Your task to perform on an android device: set the timer Image 0: 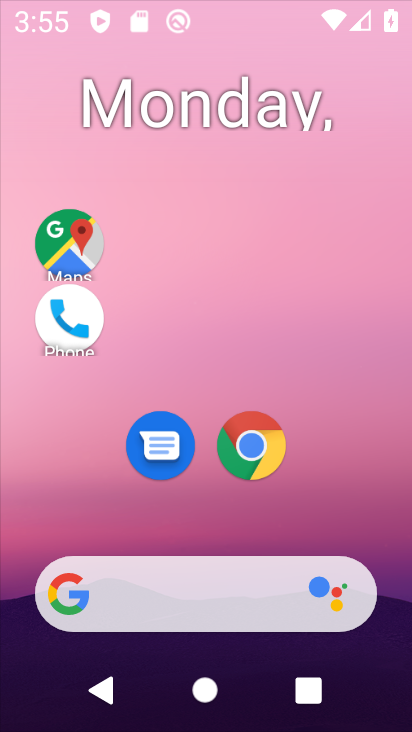
Step 0: click (261, 443)
Your task to perform on an android device: set the timer Image 1: 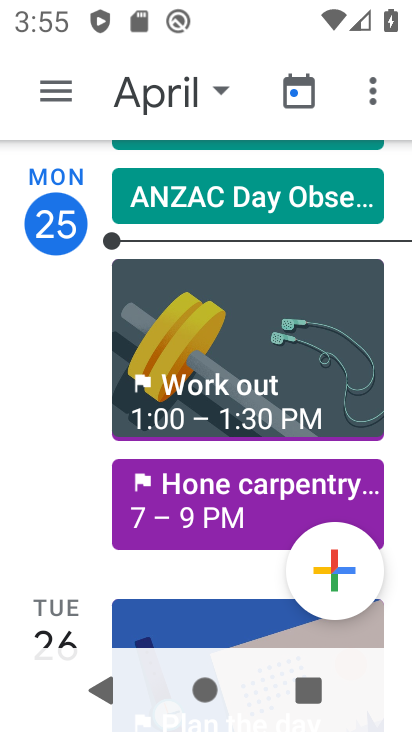
Step 1: press home button
Your task to perform on an android device: set the timer Image 2: 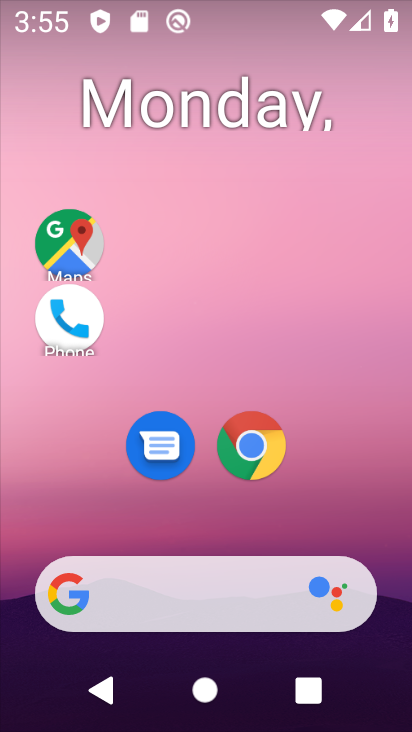
Step 2: drag from (278, 525) to (237, 42)
Your task to perform on an android device: set the timer Image 3: 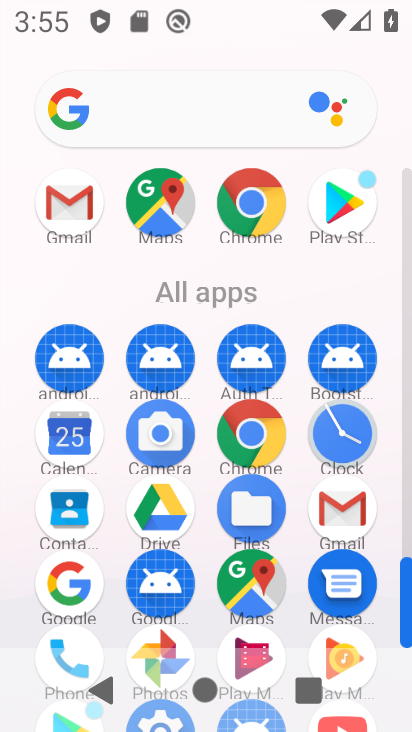
Step 3: click (341, 424)
Your task to perform on an android device: set the timer Image 4: 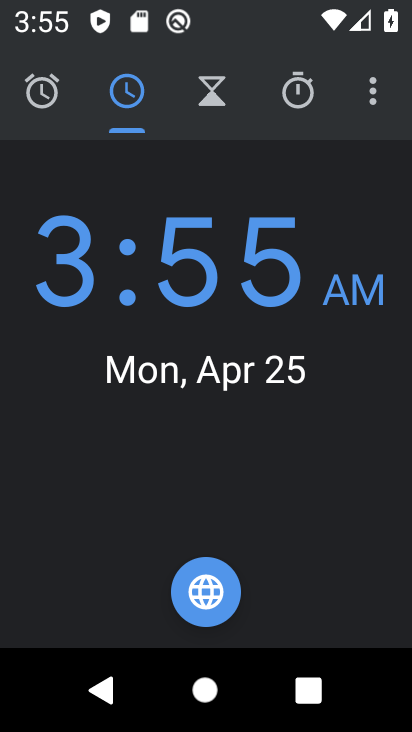
Step 4: click (220, 94)
Your task to perform on an android device: set the timer Image 5: 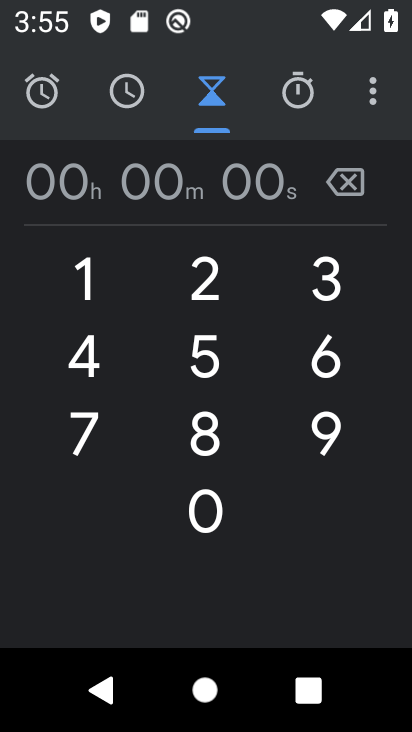
Step 5: click (112, 278)
Your task to perform on an android device: set the timer Image 6: 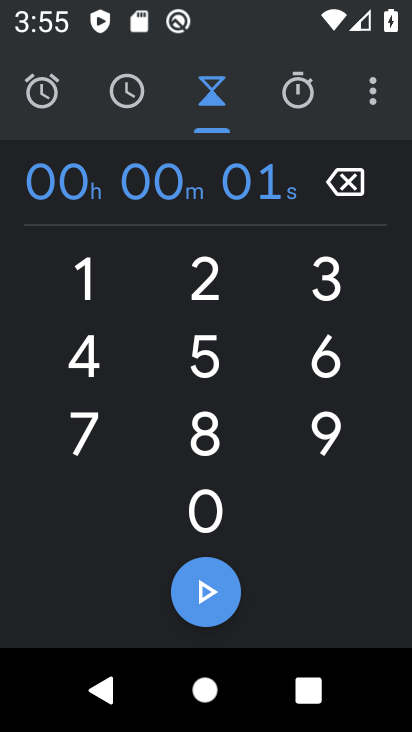
Step 6: click (98, 273)
Your task to perform on an android device: set the timer Image 7: 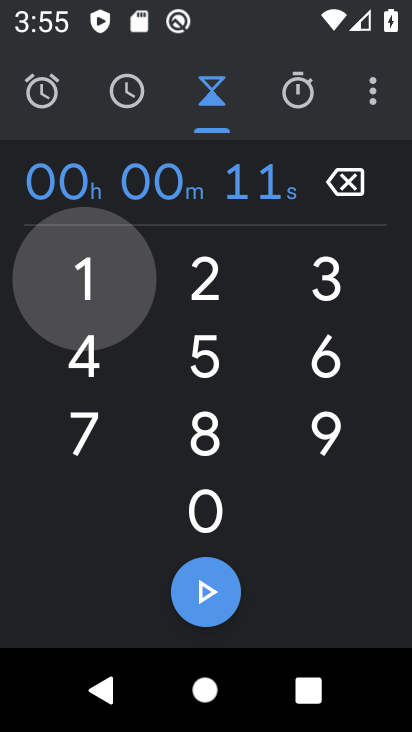
Step 7: click (98, 273)
Your task to perform on an android device: set the timer Image 8: 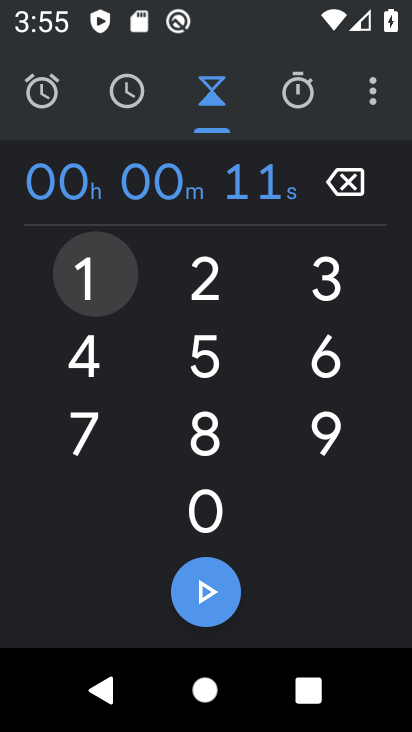
Step 8: click (98, 273)
Your task to perform on an android device: set the timer Image 9: 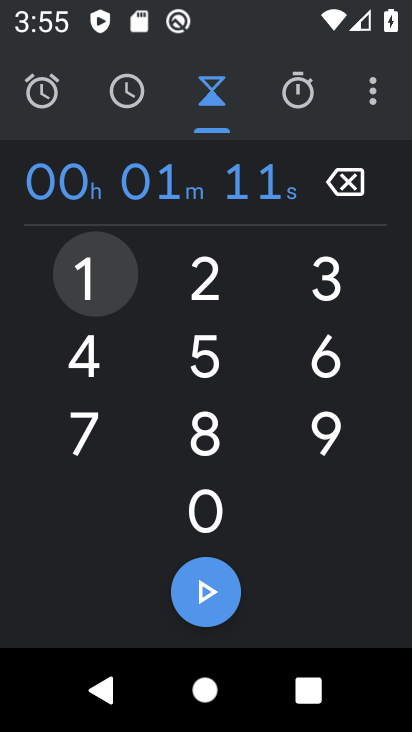
Step 9: click (98, 273)
Your task to perform on an android device: set the timer Image 10: 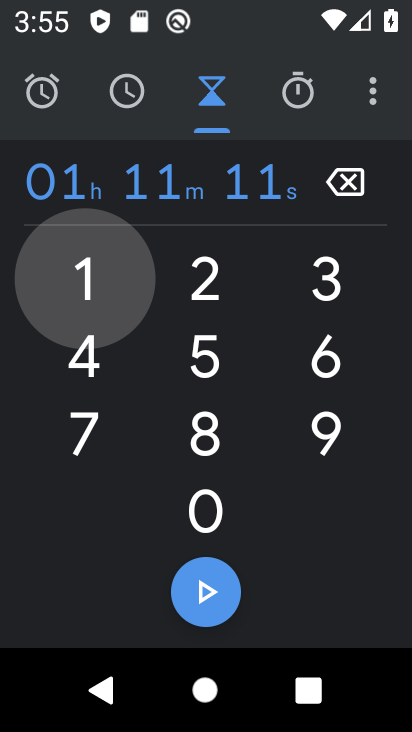
Step 10: click (98, 273)
Your task to perform on an android device: set the timer Image 11: 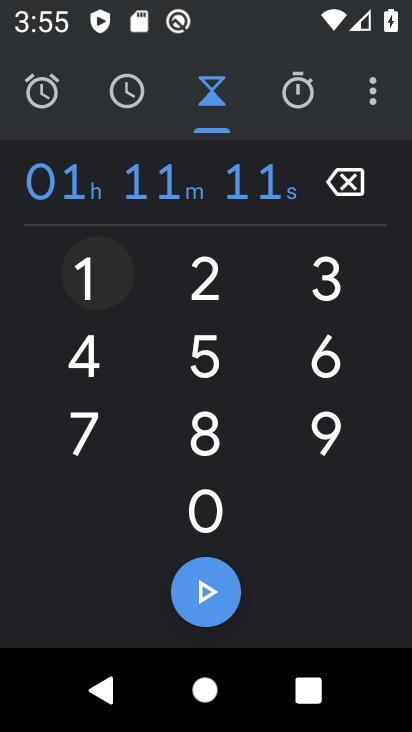
Step 11: click (98, 273)
Your task to perform on an android device: set the timer Image 12: 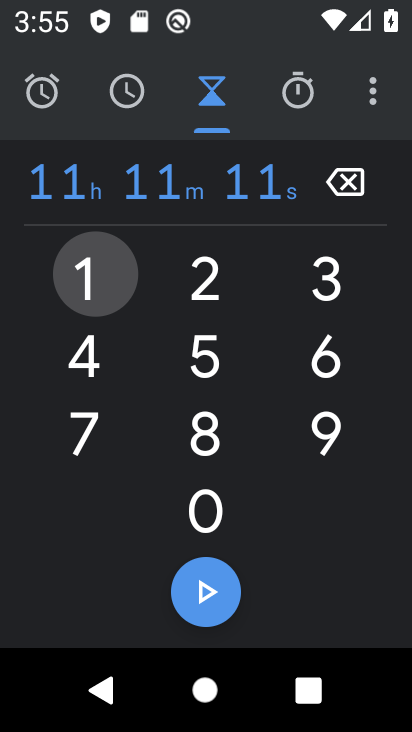
Step 12: click (98, 273)
Your task to perform on an android device: set the timer Image 13: 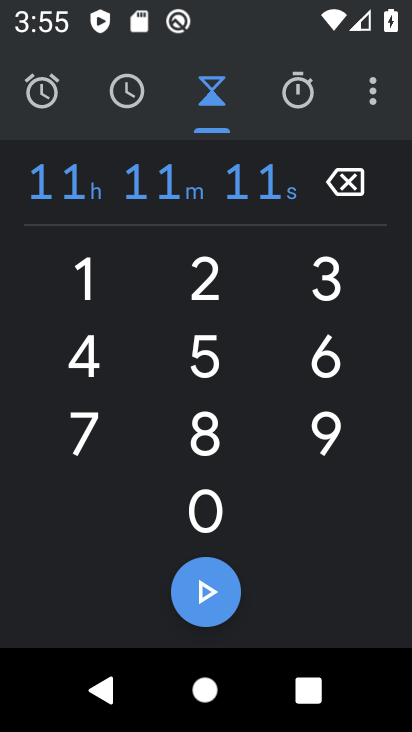
Step 13: task complete